Your task to perform on an android device: check google app version Image 0: 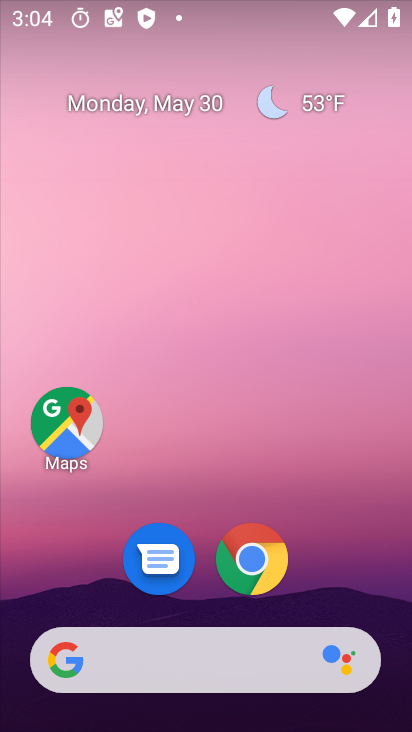
Step 0: drag from (190, 627) to (200, 318)
Your task to perform on an android device: check google app version Image 1: 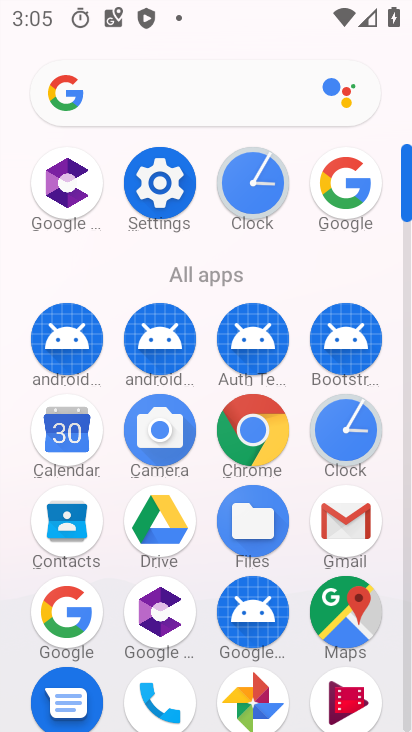
Step 1: click (60, 614)
Your task to perform on an android device: check google app version Image 2: 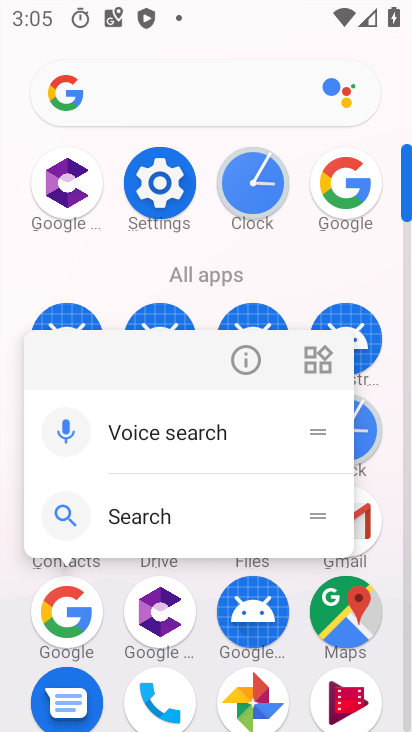
Step 2: click (248, 356)
Your task to perform on an android device: check google app version Image 3: 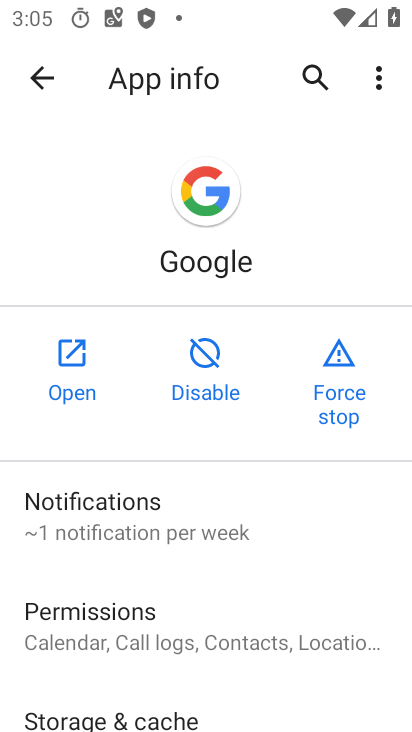
Step 3: drag from (215, 698) to (172, 232)
Your task to perform on an android device: check google app version Image 4: 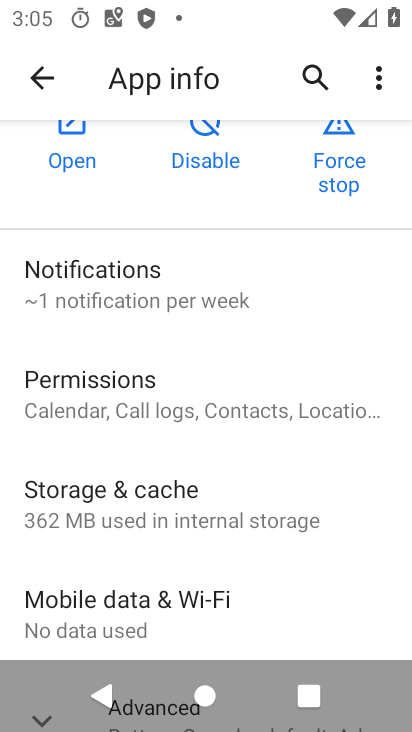
Step 4: drag from (151, 639) to (147, 224)
Your task to perform on an android device: check google app version Image 5: 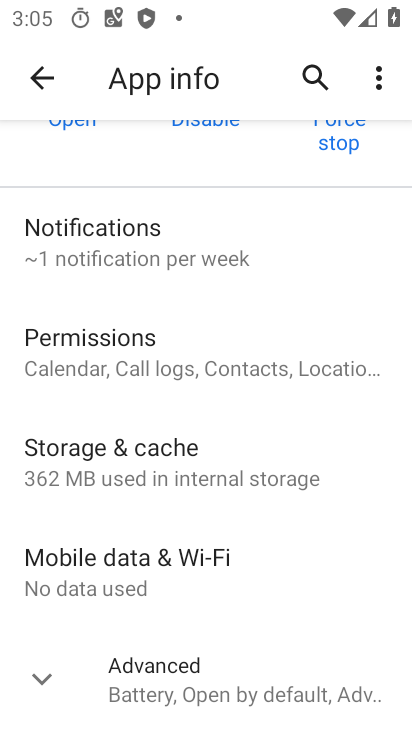
Step 5: click (153, 686)
Your task to perform on an android device: check google app version Image 6: 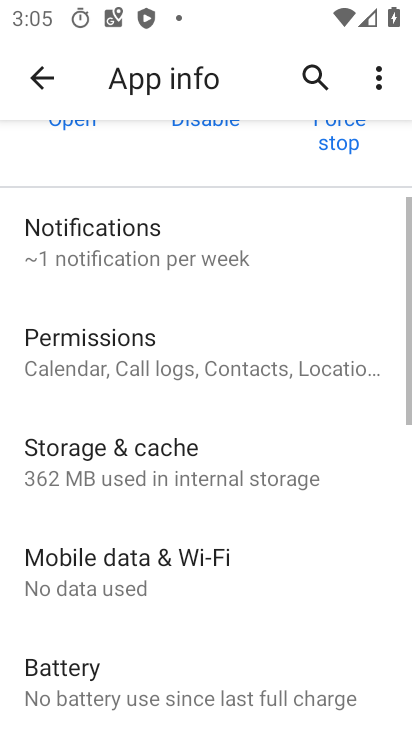
Step 6: task complete